Your task to perform on an android device: Check the weather Image 0: 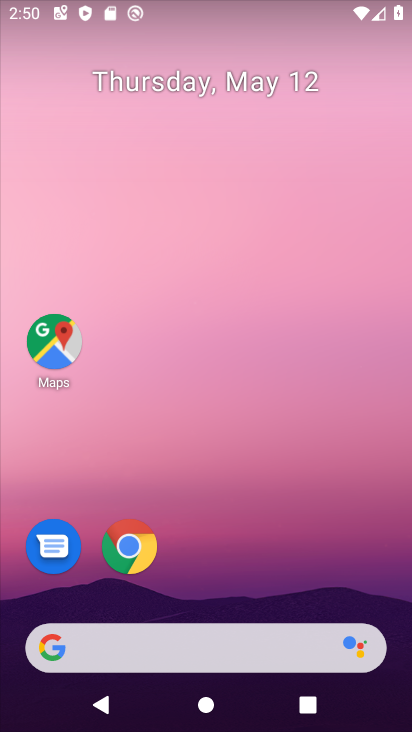
Step 0: drag from (280, 550) to (276, 261)
Your task to perform on an android device: Check the weather Image 1: 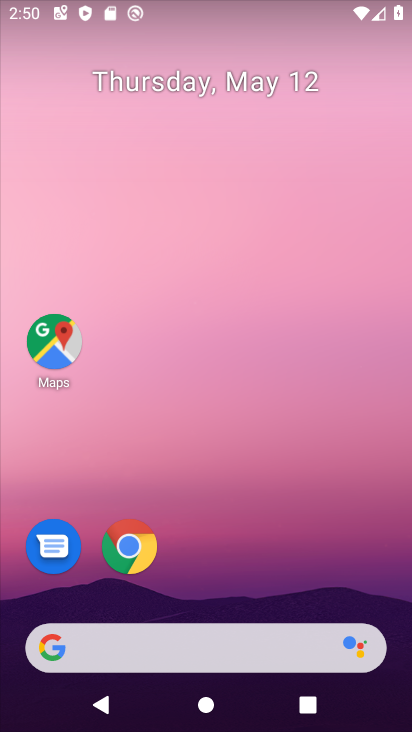
Step 1: drag from (279, 612) to (265, 239)
Your task to perform on an android device: Check the weather Image 2: 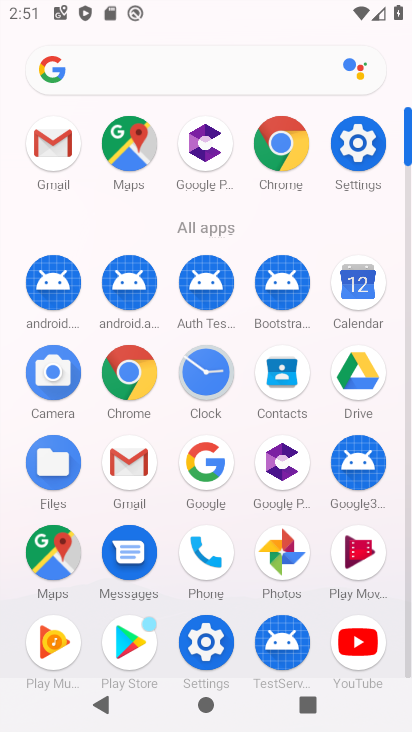
Step 2: click (286, 126)
Your task to perform on an android device: Check the weather Image 3: 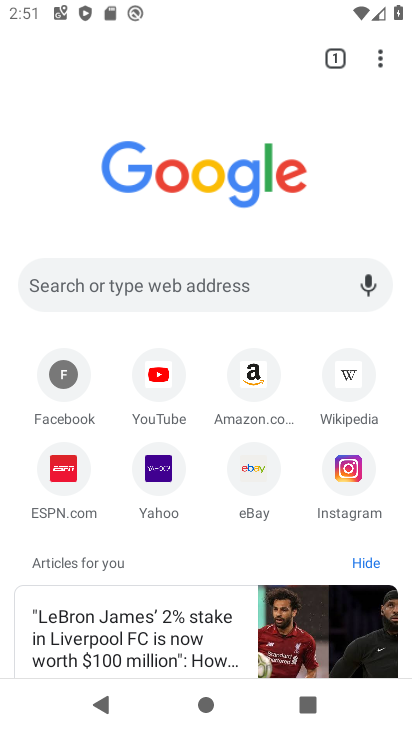
Step 3: click (171, 275)
Your task to perform on an android device: Check the weather Image 4: 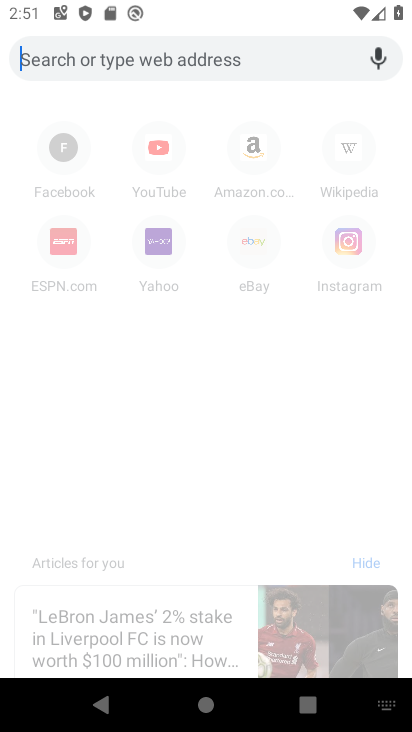
Step 4: type "Check the weather"
Your task to perform on an android device: Check the weather Image 5: 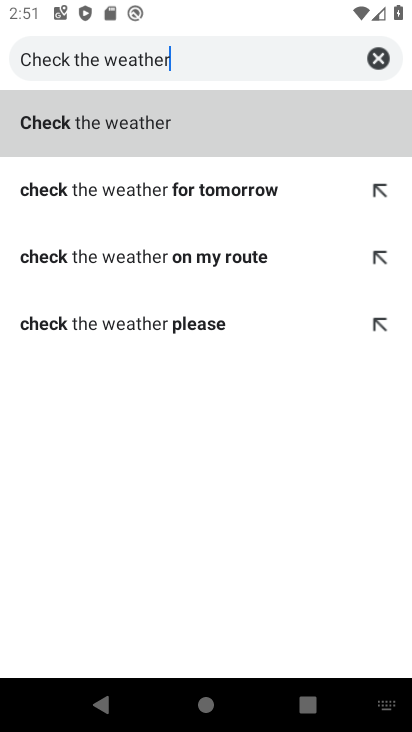
Step 5: click (157, 118)
Your task to perform on an android device: Check the weather Image 6: 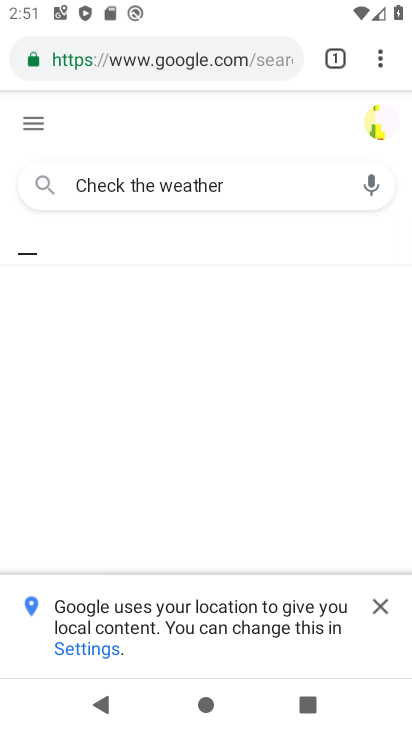
Step 6: click (385, 596)
Your task to perform on an android device: Check the weather Image 7: 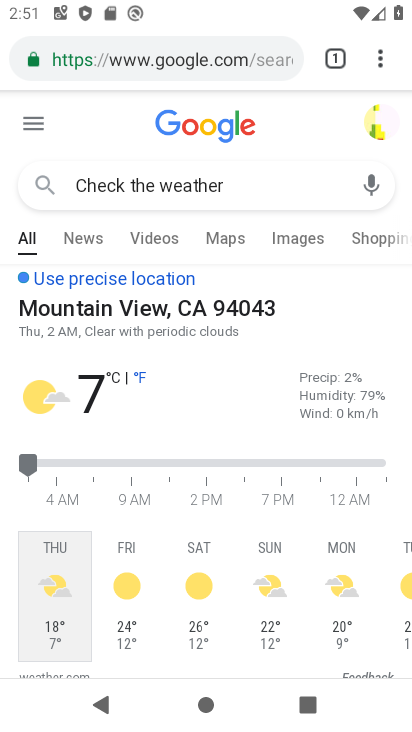
Step 7: task complete